Your task to perform on an android device: Open Android settings Image 0: 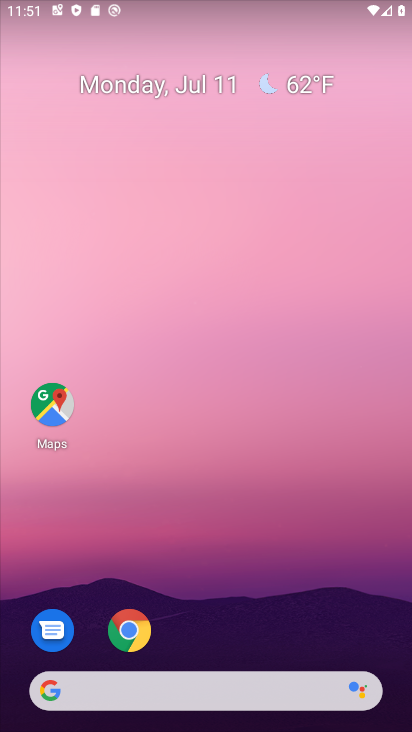
Step 0: drag from (192, 679) to (214, 220)
Your task to perform on an android device: Open Android settings Image 1: 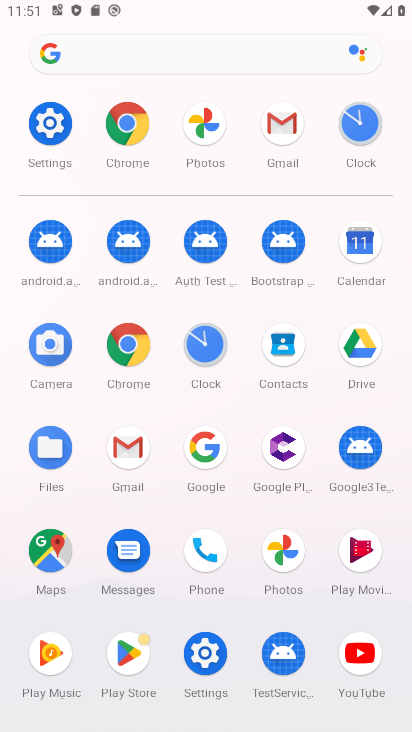
Step 1: click (63, 108)
Your task to perform on an android device: Open Android settings Image 2: 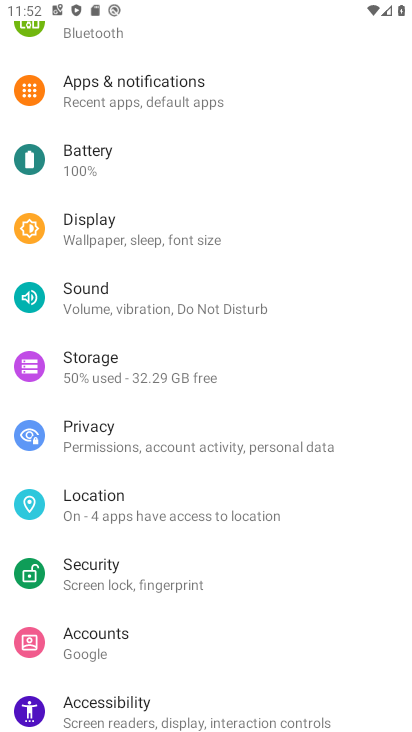
Step 2: drag from (127, 707) to (190, 336)
Your task to perform on an android device: Open Android settings Image 3: 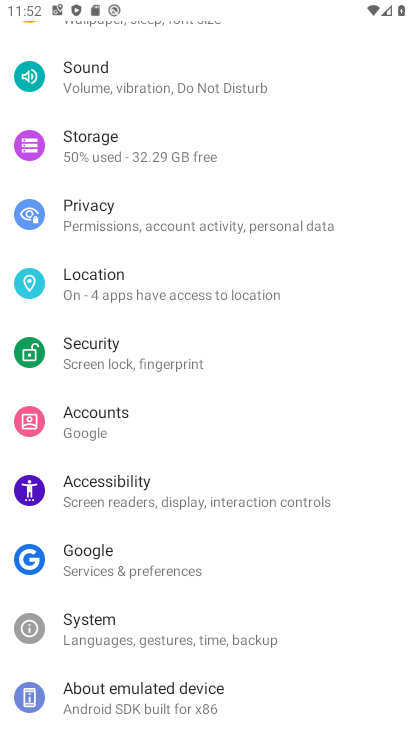
Step 3: click (156, 685)
Your task to perform on an android device: Open Android settings Image 4: 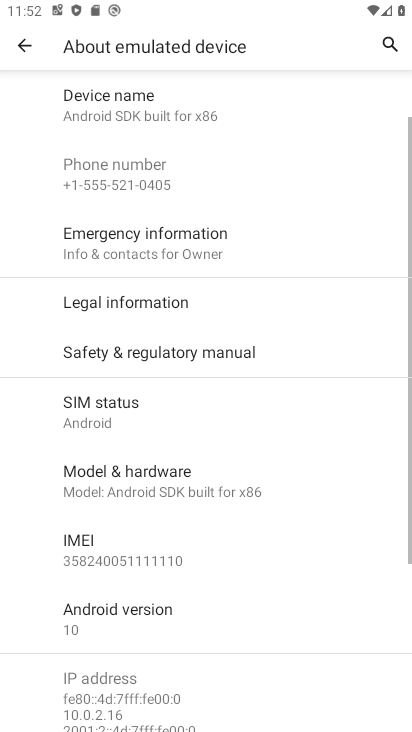
Step 4: task complete